Your task to perform on an android device: Open calendar and show me the fourth week of next month Image 0: 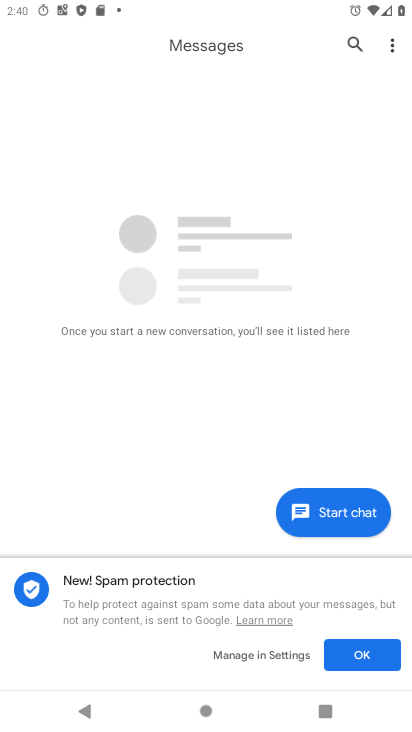
Step 0: press home button
Your task to perform on an android device: Open calendar and show me the fourth week of next month Image 1: 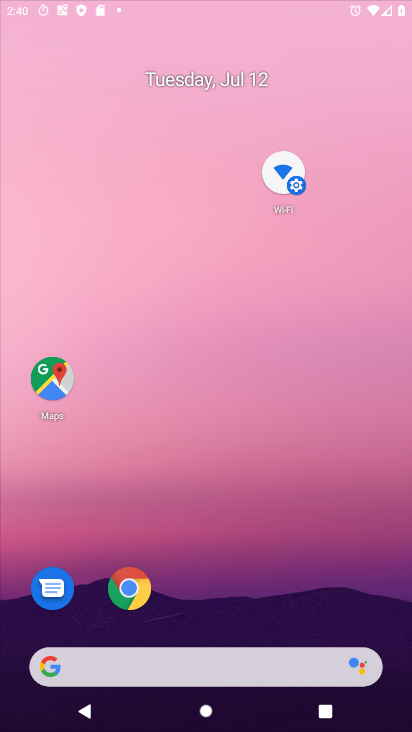
Step 1: drag from (226, 606) to (291, 42)
Your task to perform on an android device: Open calendar and show me the fourth week of next month Image 2: 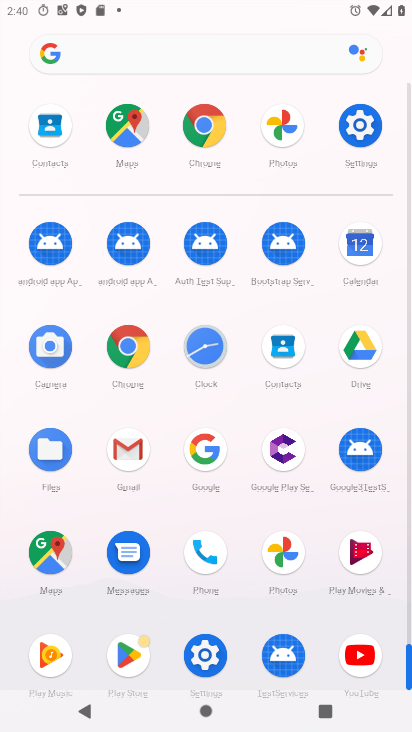
Step 2: click (354, 257)
Your task to perform on an android device: Open calendar and show me the fourth week of next month Image 3: 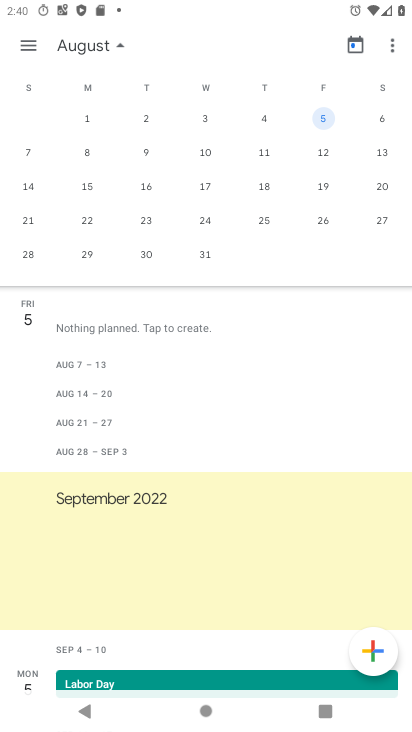
Step 3: click (260, 221)
Your task to perform on an android device: Open calendar and show me the fourth week of next month Image 4: 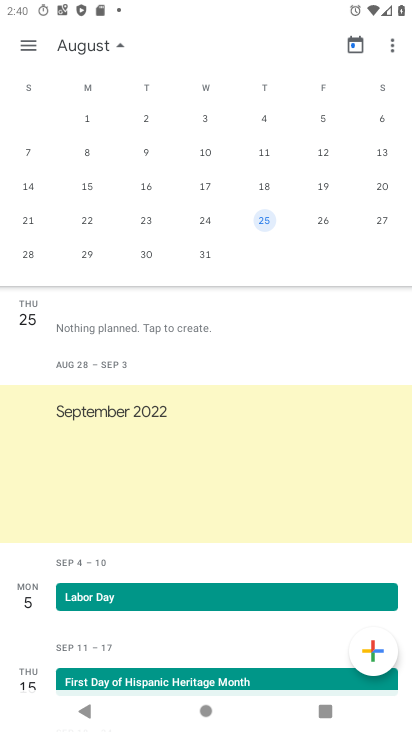
Step 4: task complete